Your task to perform on an android device: toggle notification dots Image 0: 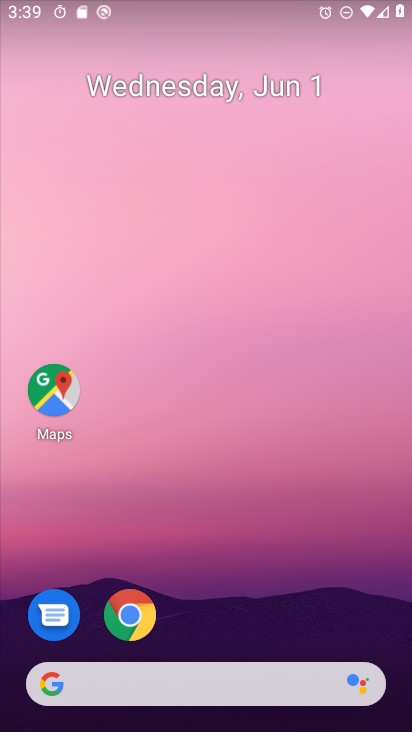
Step 0: drag from (292, 605) to (272, 0)
Your task to perform on an android device: toggle notification dots Image 1: 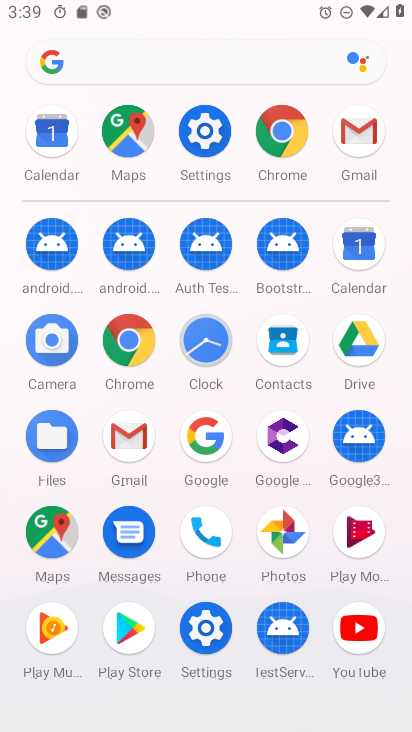
Step 1: click (214, 638)
Your task to perform on an android device: toggle notification dots Image 2: 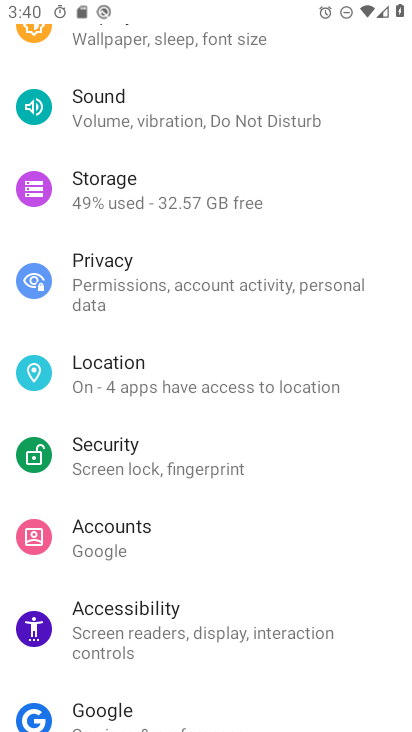
Step 2: drag from (238, 567) to (227, 189)
Your task to perform on an android device: toggle notification dots Image 3: 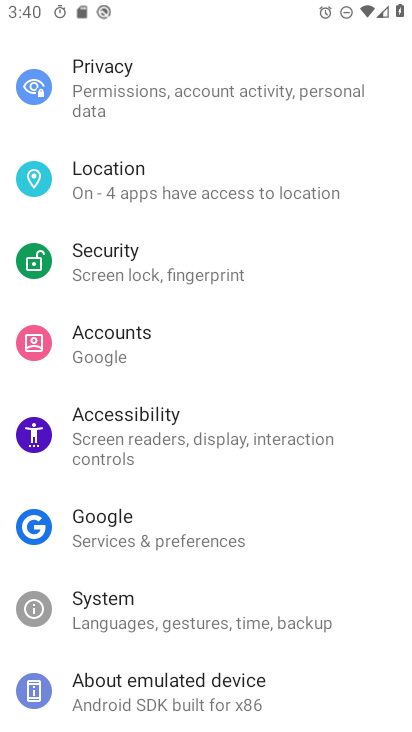
Step 3: drag from (265, 200) to (225, 525)
Your task to perform on an android device: toggle notification dots Image 4: 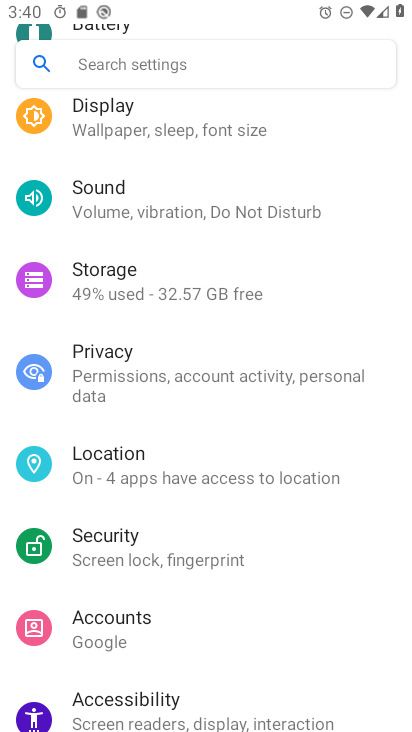
Step 4: drag from (275, 174) to (234, 514)
Your task to perform on an android device: toggle notification dots Image 5: 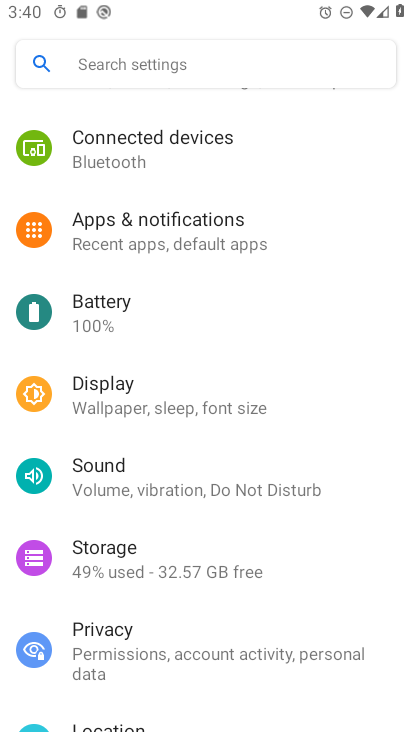
Step 5: click (225, 237)
Your task to perform on an android device: toggle notification dots Image 6: 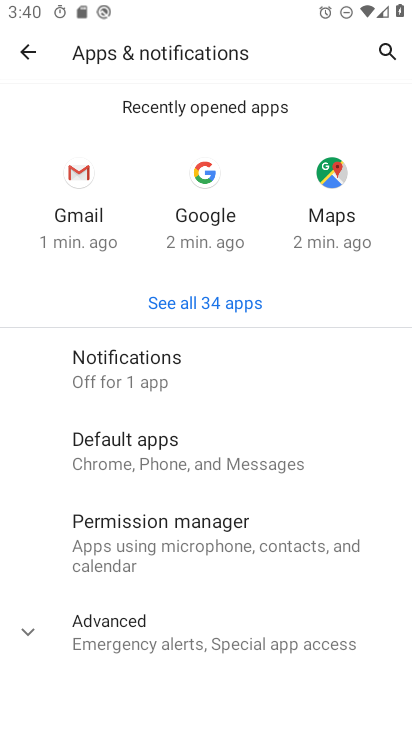
Step 6: click (172, 632)
Your task to perform on an android device: toggle notification dots Image 7: 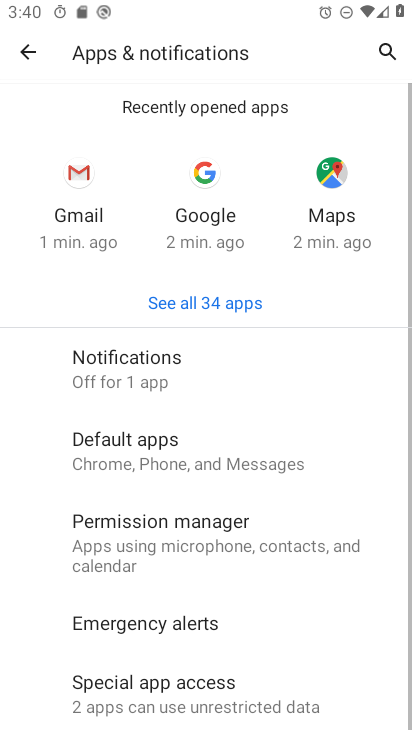
Step 7: drag from (293, 569) to (262, 195)
Your task to perform on an android device: toggle notification dots Image 8: 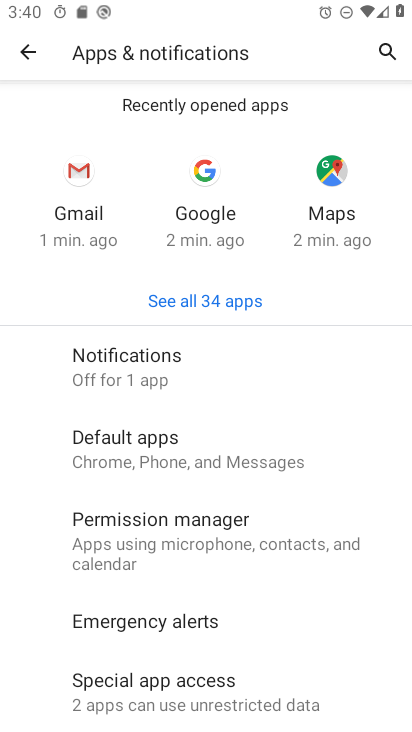
Step 8: click (201, 627)
Your task to perform on an android device: toggle notification dots Image 9: 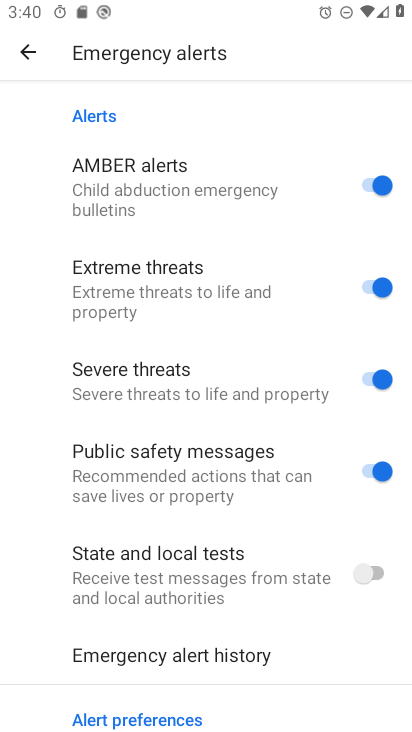
Step 9: drag from (289, 581) to (261, 202)
Your task to perform on an android device: toggle notification dots Image 10: 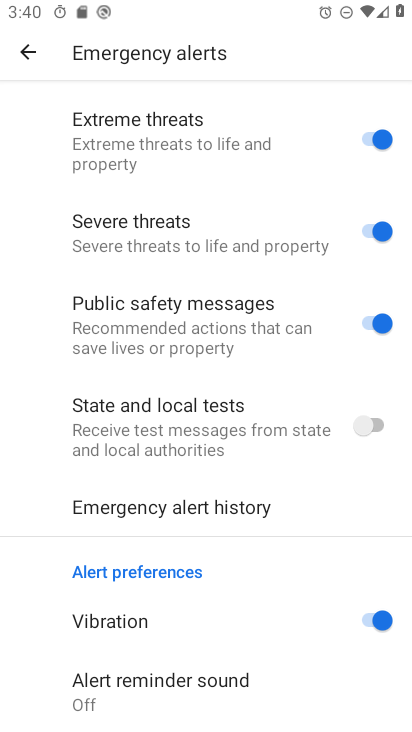
Step 10: press back button
Your task to perform on an android device: toggle notification dots Image 11: 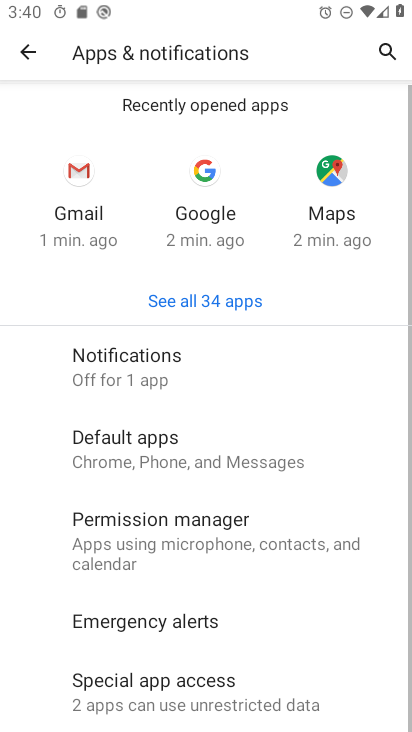
Step 11: click (216, 695)
Your task to perform on an android device: toggle notification dots Image 12: 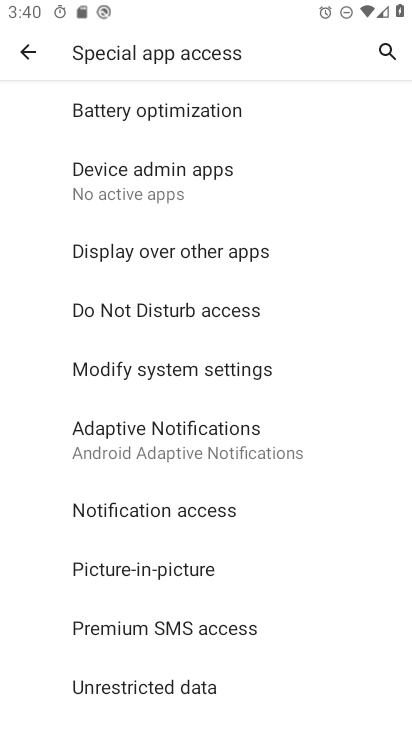
Step 12: drag from (279, 634) to (246, 221)
Your task to perform on an android device: toggle notification dots Image 13: 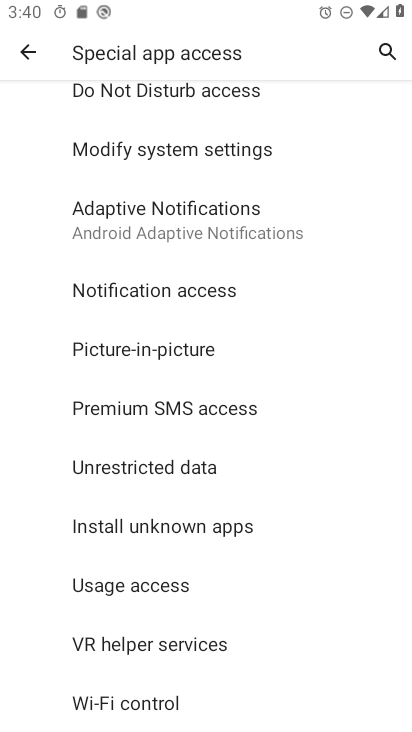
Step 13: click (209, 290)
Your task to perform on an android device: toggle notification dots Image 14: 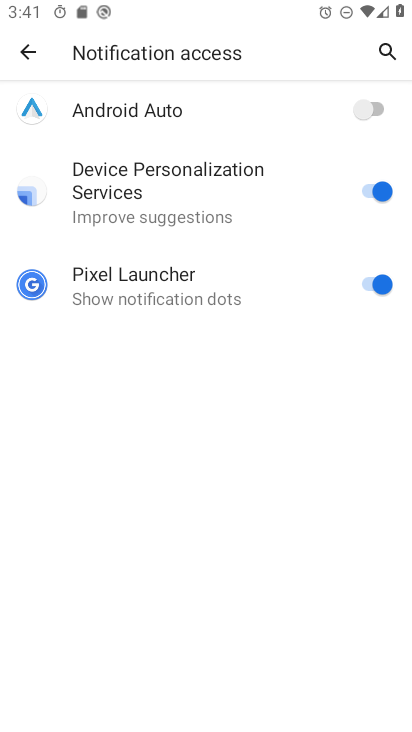
Step 14: press back button
Your task to perform on an android device: toggle notification dots Image 15: 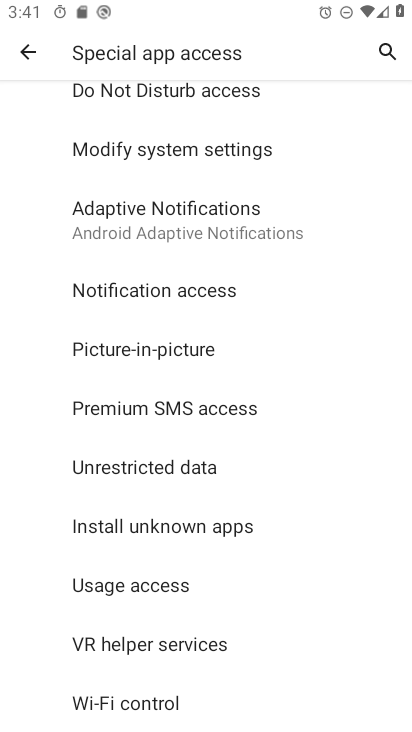
Step 15: press home button
Your task to perform on an android device: toggle notification dots Image 16: 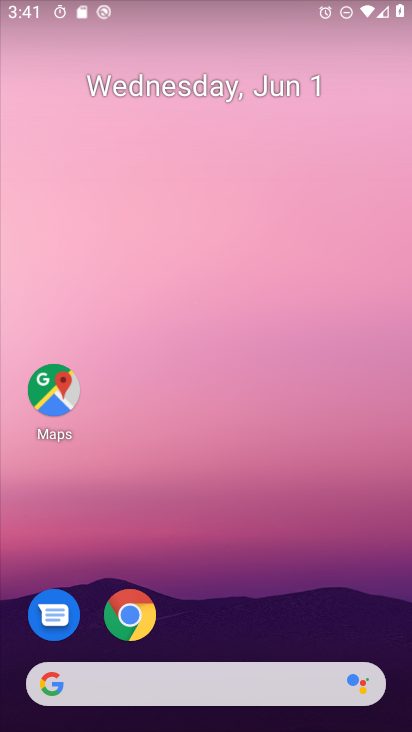
Step 16: drag from (219, 613) to (213, 82)
Your task to perform on an android device: toggle notification dots Image 17: 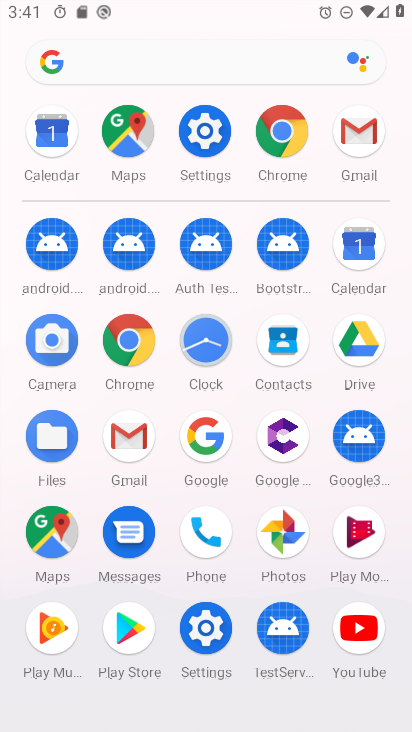
Step 17: click (216, 141)
Your task to perform on an android device: toggle notification dots Image 18: 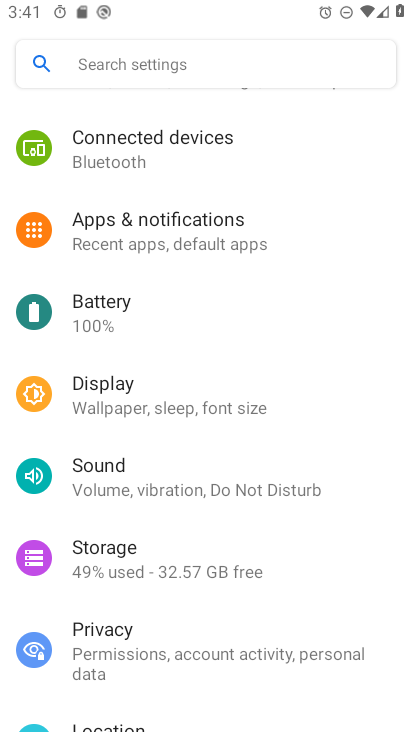
Step 18: drag from (319, 575) to (267, 211)
Your task to perform on an android device: toggle notification dots Image 19: 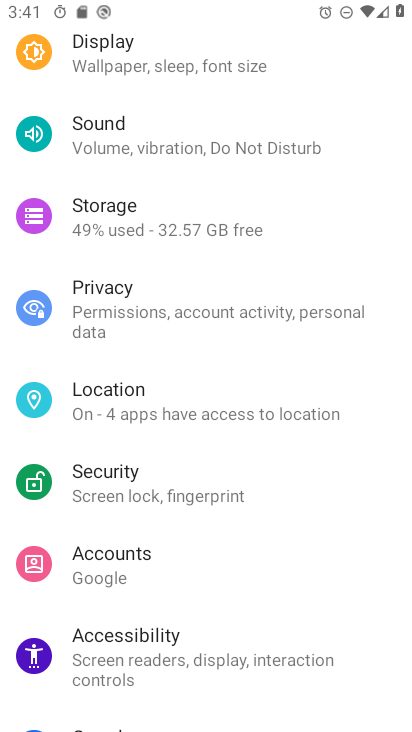
Step 19: click (142, 653)
Your task to perform on an android device: toggle notification dots Image 20: 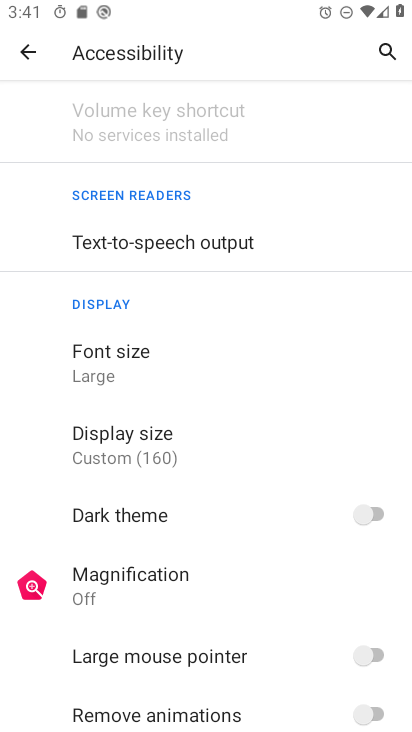
Step 20: drag from (287, 545) to (274, 300)
Your task to perform on an android device: toggle notification dots Image 21: 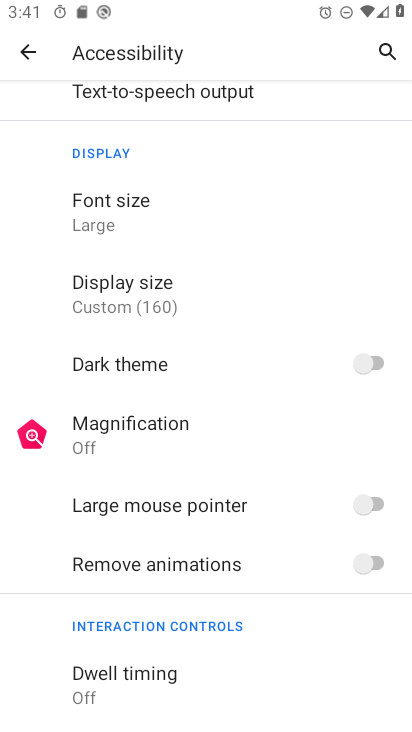
Step 21: drag from (276, 675) to (315, 260)
Your task to perform on an android device: toggle notification dots Image 22: 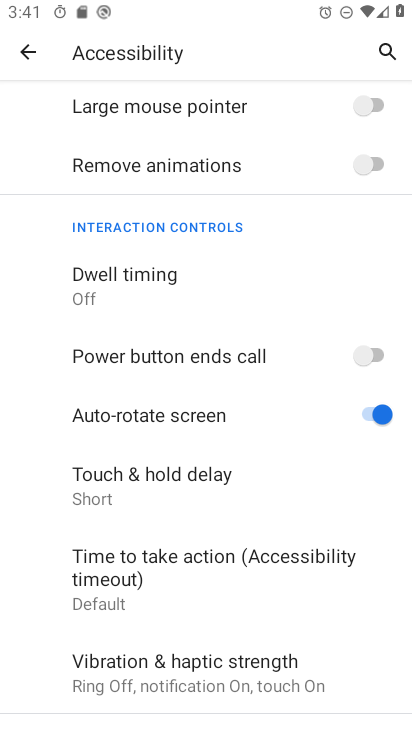
Step 22: drag from (264, 623) to (263, 109)
Your task to perform on an android device: toggle notification dots Image 23: 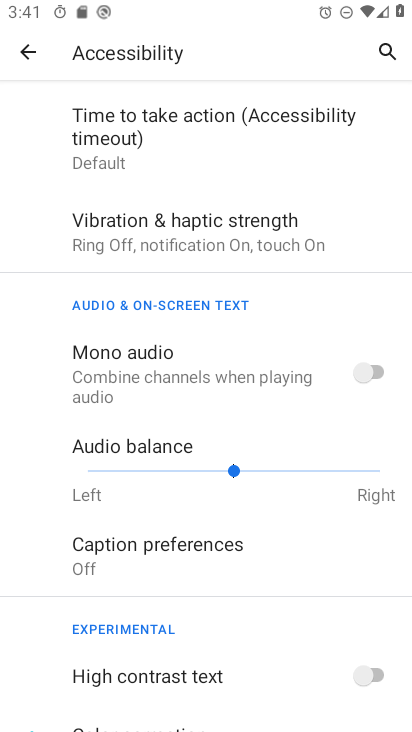
Step 23: drag from (305, 595) to (288, 137)
Your task to perform on an android device: toggle notification dots Image 24: 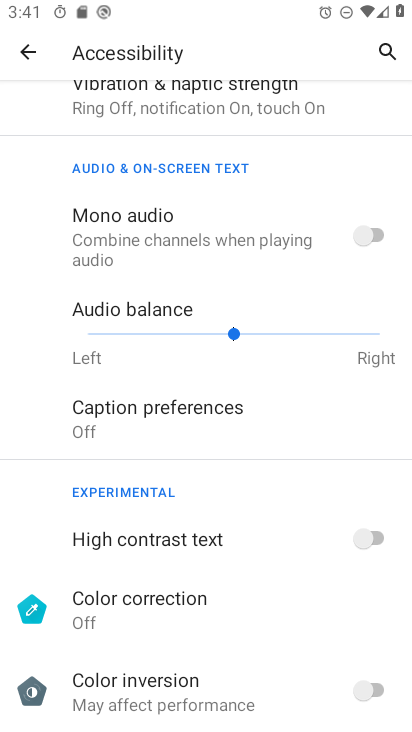
Step 24: press back button
Your task to perform on an android device: toggle notification dots Image 25: 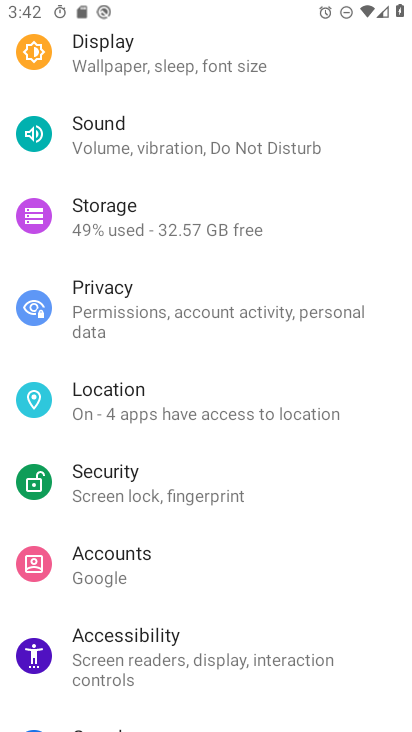
Step 25: drag from (271, 373) to (276, 135)
Your task to perform on an android device: toggle notification dots Image 26: 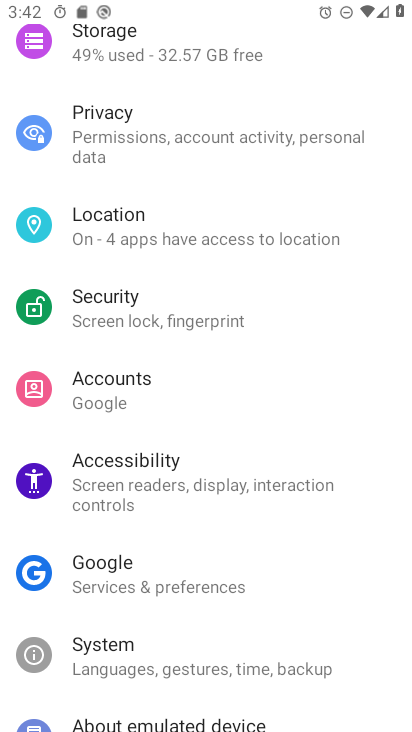
Step 26: drag from (278, 130) to (169, 571)
Your task to perform on an android device: toggle notification dots Image 27: 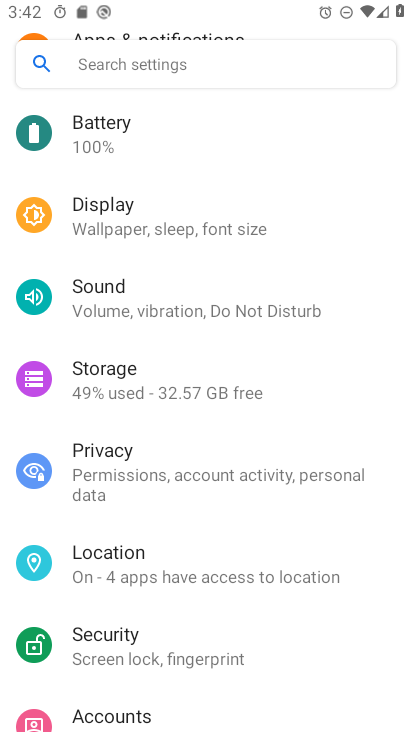
Step 27: drag from (260, 217) to (223, 537)
Your task to perform on an android device: toggle notification dots Image 28: 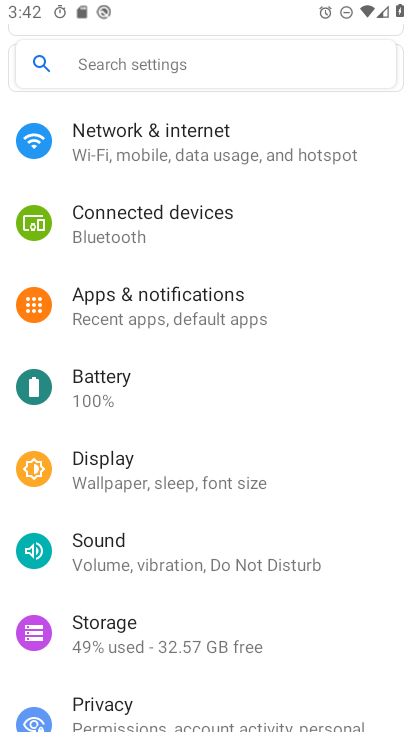
Step 28: click (225, 306)
Your task to perform on an android device: toggle notification dots Image 29: 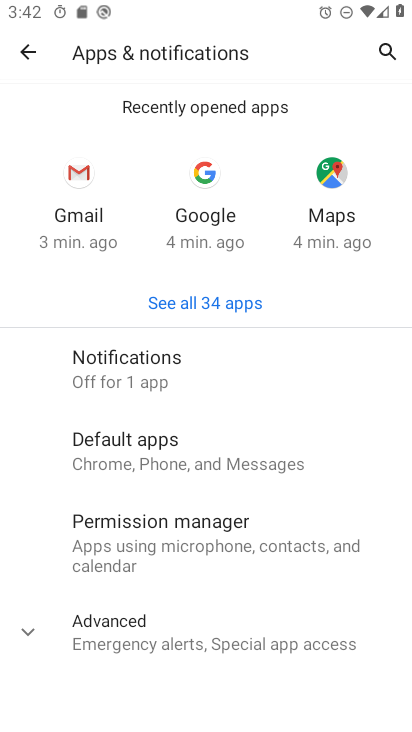
Step 29: click (163, 373)
Your task to perform on an android device: toggle notification dots Image 30: 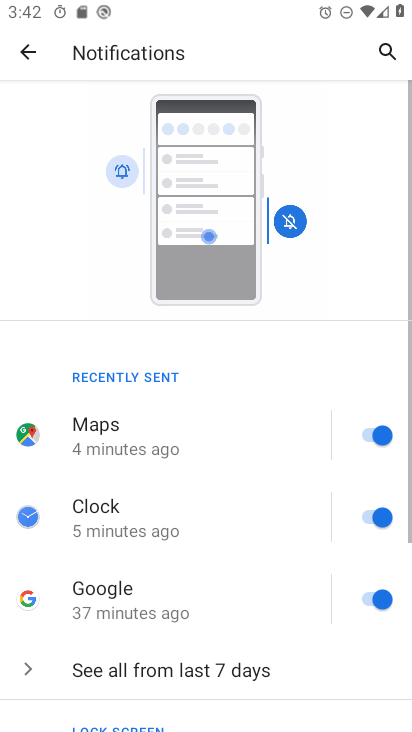
Step 30: drag from (253, 536) to (312, 122)
Your task to perform on an android device: toggle notification dots Image 31: 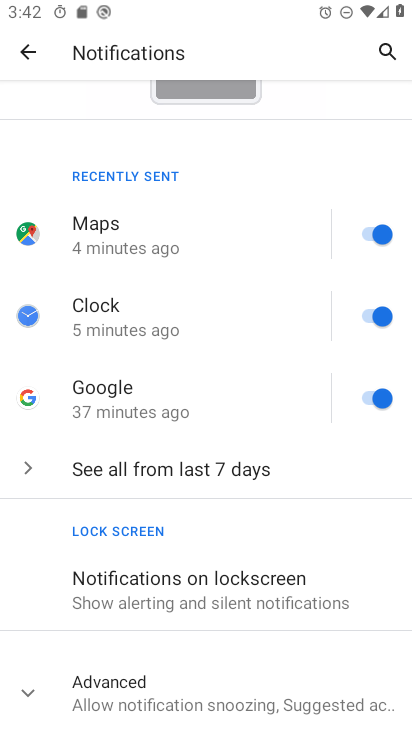
Step 31: click (164, 703)
Your task to perform on an android device: toggle notification dots Image 32: 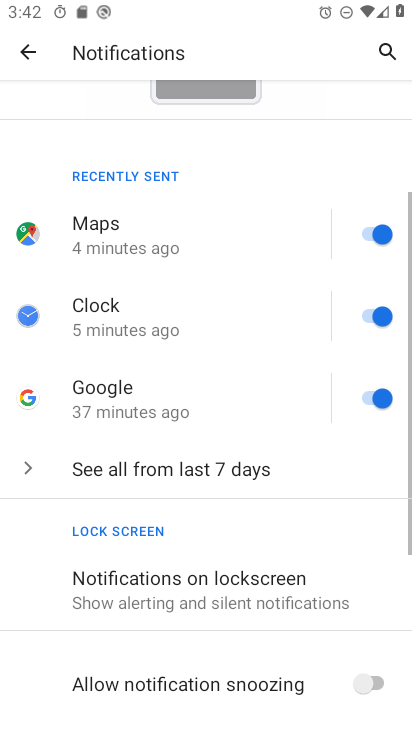
Step 32: drag from (310, 537) to (316, 128)
Your task to perform on an android device: toggle notification dots Image 33: 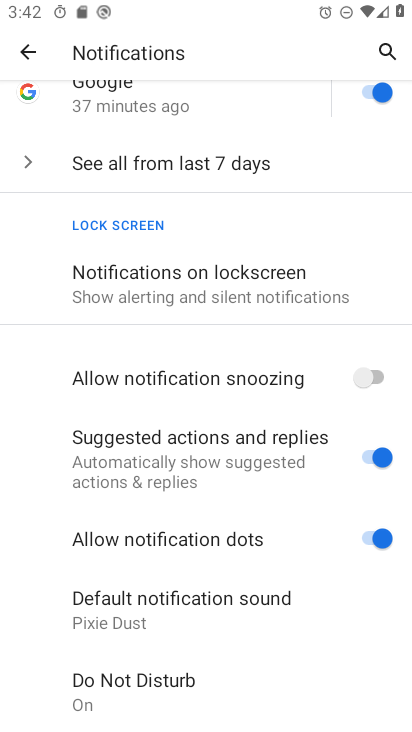
Step 33: click (385, 538)
Your task to perform on an android device: toggle notification dots Image 34: 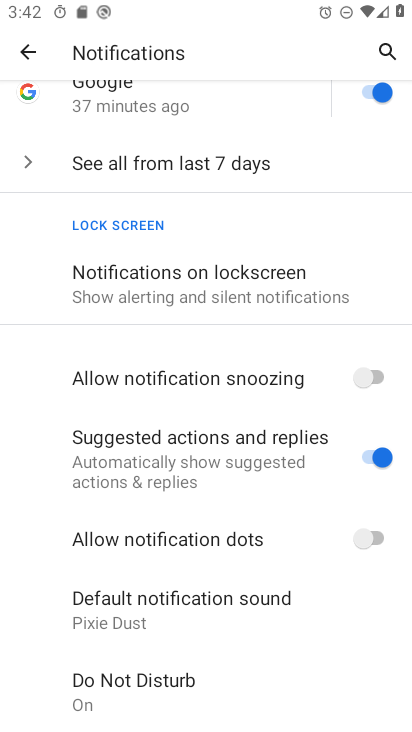
Step 34: task complete